Your task to perform on an android device: turn off sleep mode Image 0: 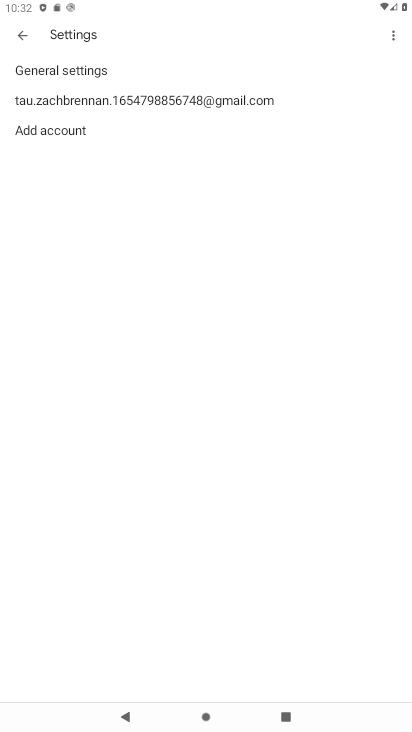
Step 0: drag from (280, 607) to (259, 246)
Your task to perform on an android device: turn off sleep mode Image 1: 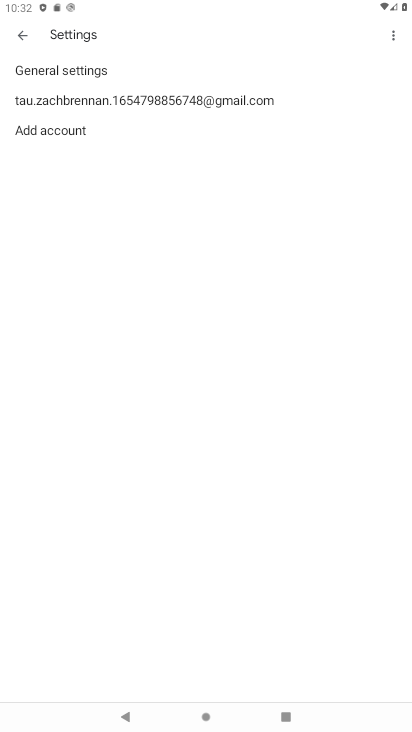
Step 1: click (21, 31)
Your task to perform on an android device: turn off sleep mode Image 2: 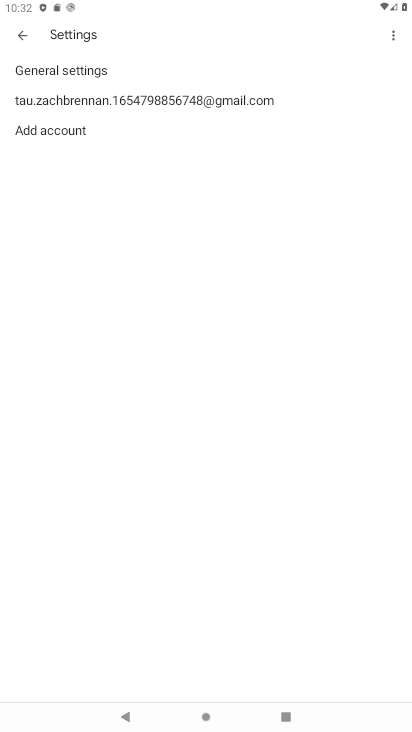
Step 2: click (21, 32)
Your task to perform on an android device: turn off sleep mode Image 3: 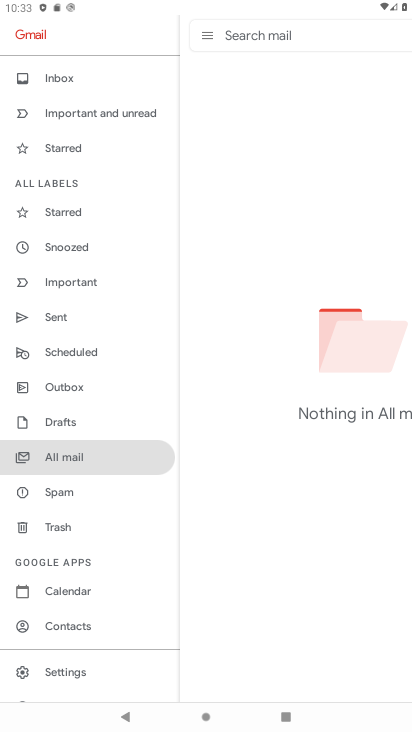
Step 3: press back button
Your task to perform on an android device: turn off sleep mode Image 4: 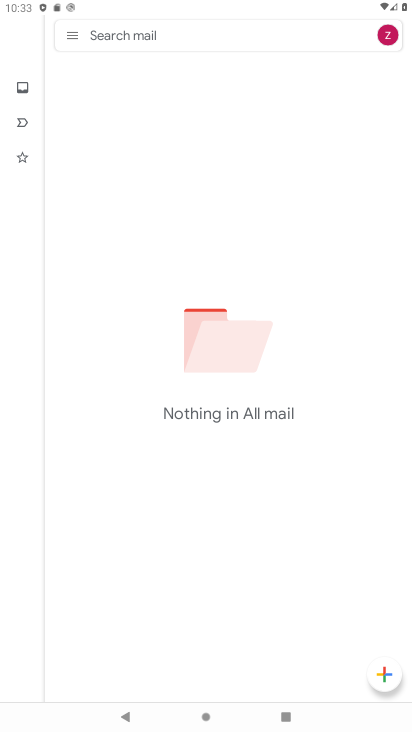
Step 4: press home button
Your task to perform on an android device: turn off sleep mode Image 5: 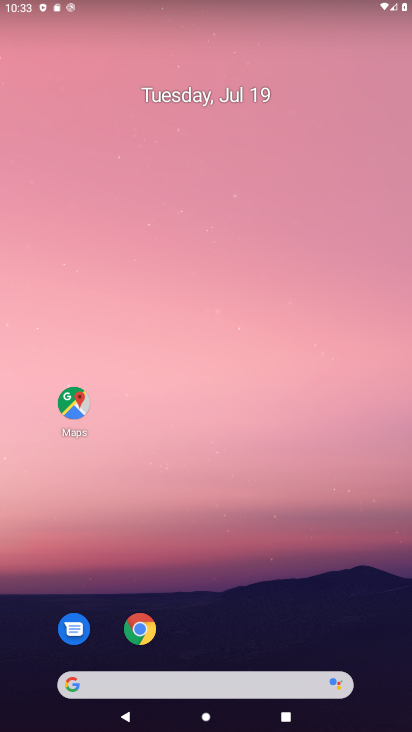
Step 5: drag from (178, 580) to (172, 214)
Your task to perform on an android device: turn off sleep mode Image 6: 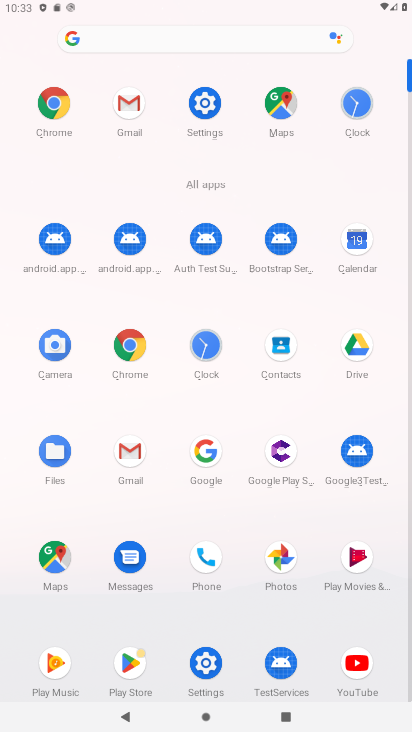
Step 6: click (203, 111)
Your task to perform on an android device: turn off sleep mode Image 7: 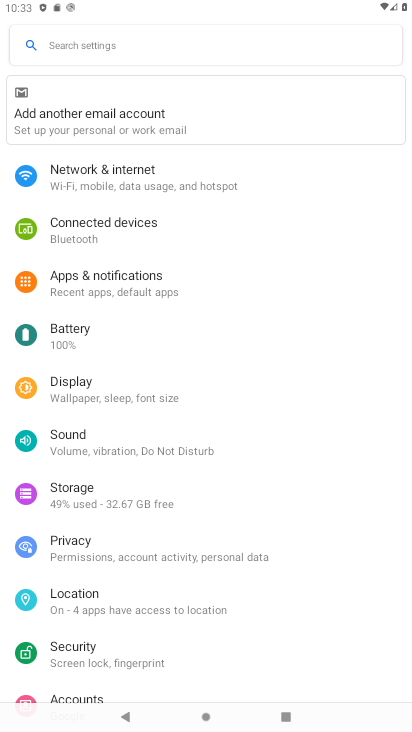
Step 7: click (73, 388)
Your task to perform on an android device: turn off sleep mode Image 8: 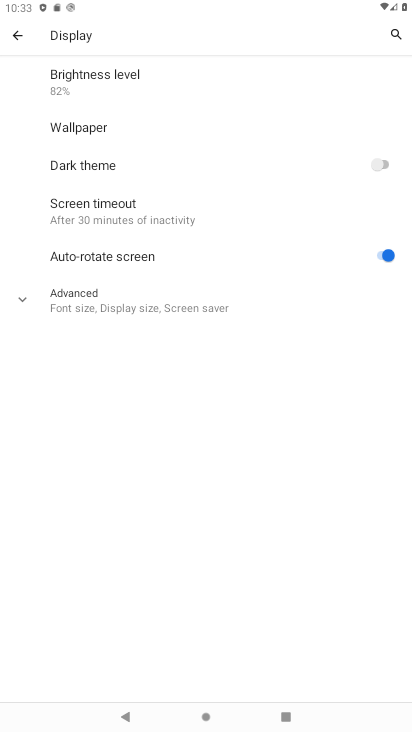
Step 8: click (71, 283)
Your task to perform on an android device: turn off sleep mode Image 9: 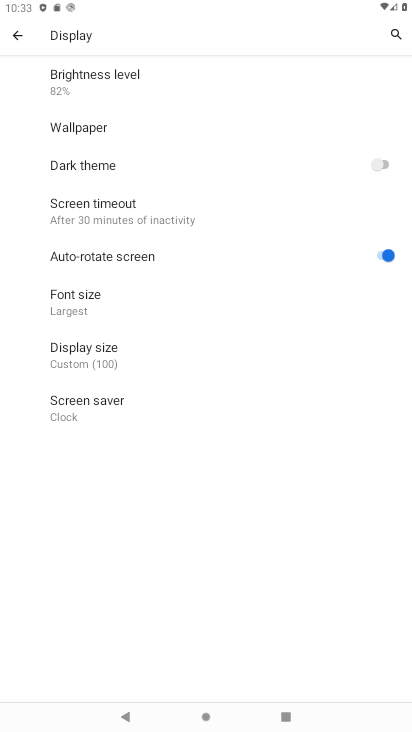
Step 9: click (11, 36)
Your task to perform on an android device: turn off sleep mode Image 10: 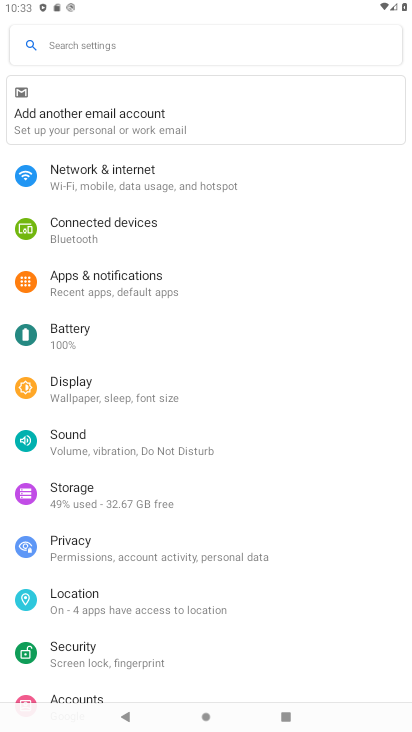
Step 10: click (57, 383)
Your task to perform on an android device: turn off sleep mode Image 11: 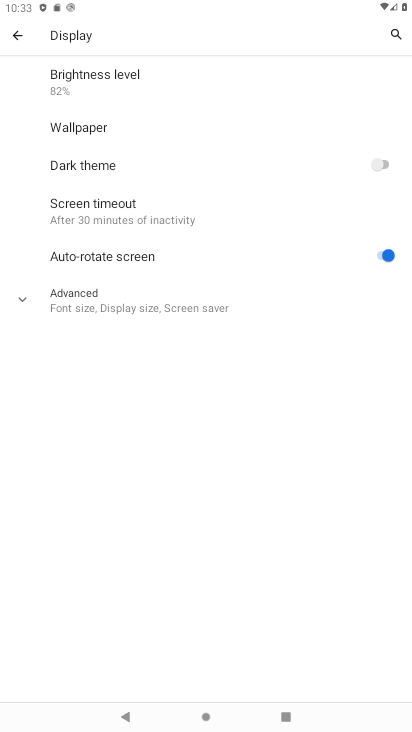
Step 11: task complete